Your task to perform on an android device: turn off notifications settings in the gmail app Image 0: 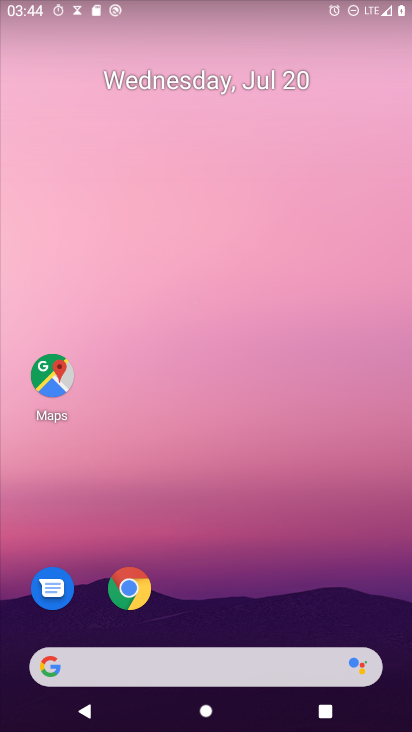
Step 0: drag from (197, 628) to (186, 108)
Your task to perform on an android device: turn off notifications settings in the gmail app Image 1: 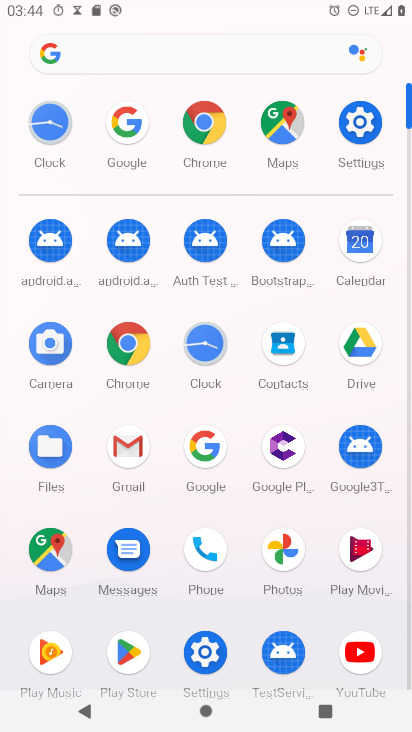
Step 1: click (130, 438)
Your task to perform on an android device: turn off notifications settings in the gmail app Image 2: 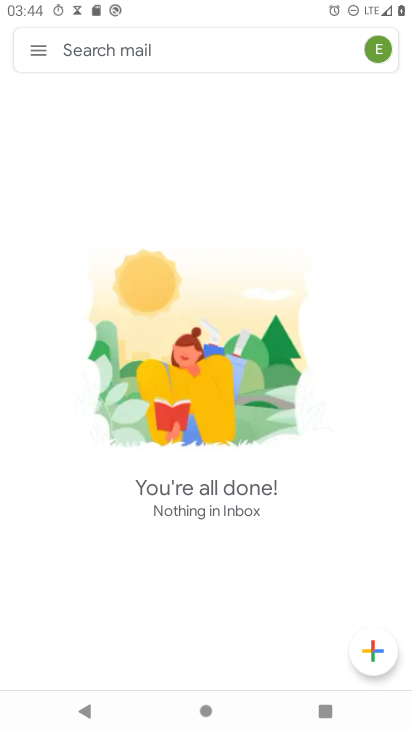
Step 2: click (26, 48)
Your task to perform on an android device: turn off notifications settings in the gmail app Image 3: 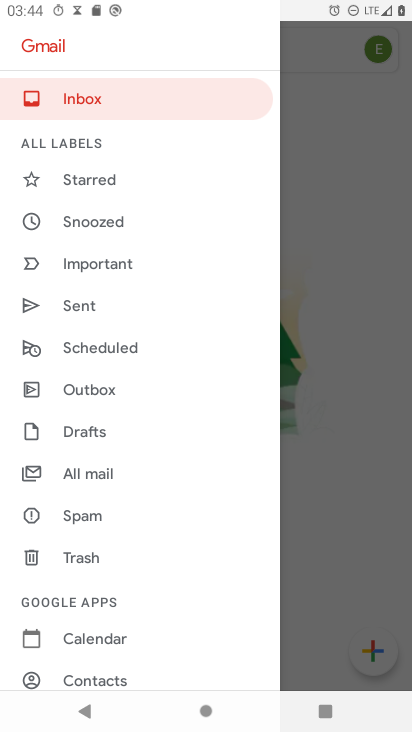
Step 3: drag from (214, 616) to (149, 178)
Your task to perform on an android device: turn off notifications settings in the gmail app Image 4: 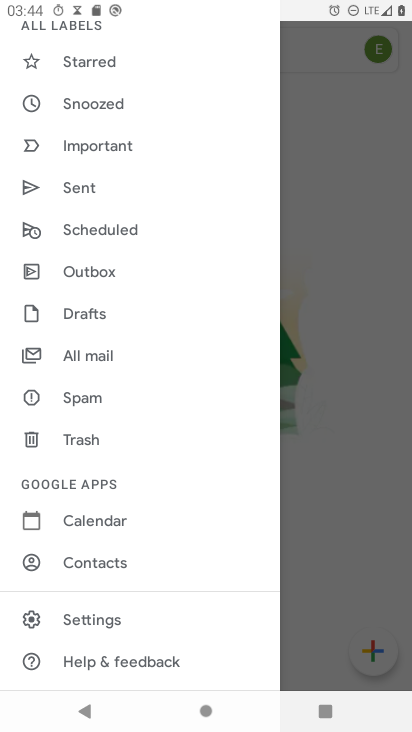
Step 4: click (65, 603)
Your task to perform on an android device: turn off notifications settings in the gmail app Image 5: 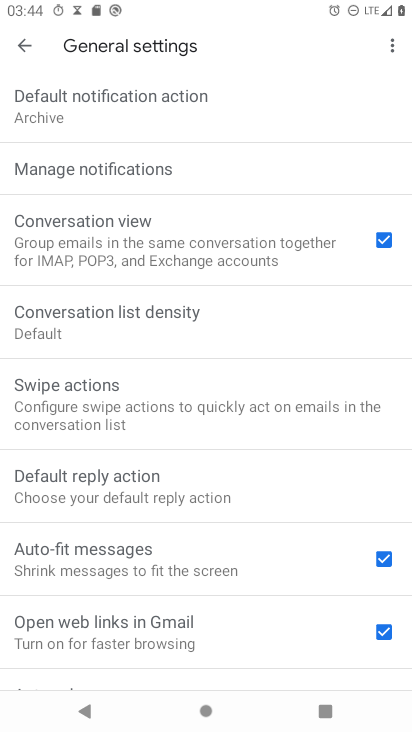
Step 5: click (59, 167)
Your task to perform on an android device: turn off notifications settings in the gmail app Image 6: 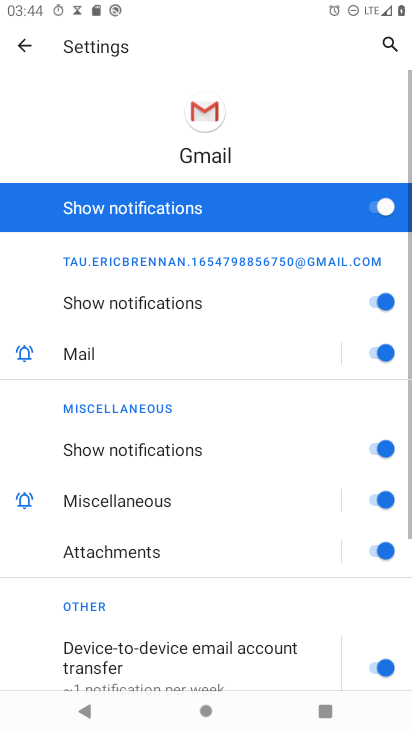
Step 6: click (363, 206)
Your task to perform on an android device: turn off notifications settings in the gmail app Image 7: 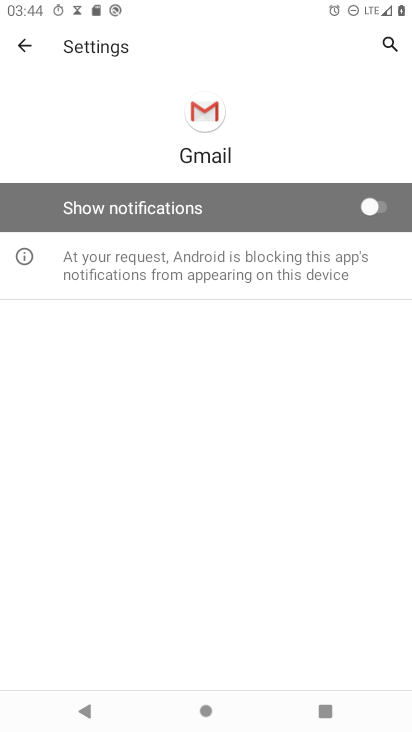
Step 7: task complete